Your task to perform on an android device: see tabs open on other devices in the chrome app Image 0: 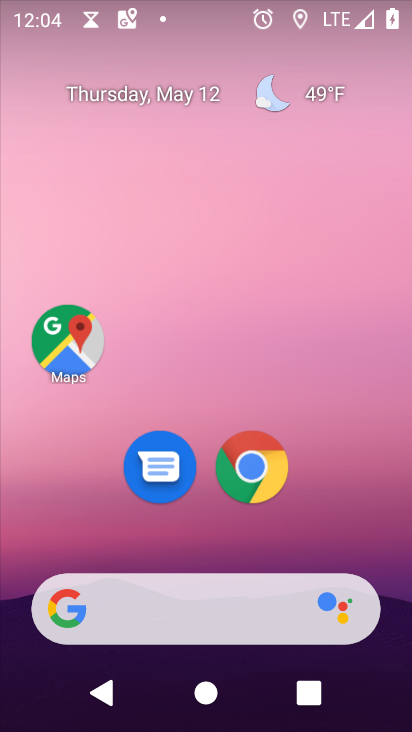
Step 0: drag from (171, 626) to (342, 197)
Your task to perform on an android device: see tabs open on other devices in the chrome app Image 1: 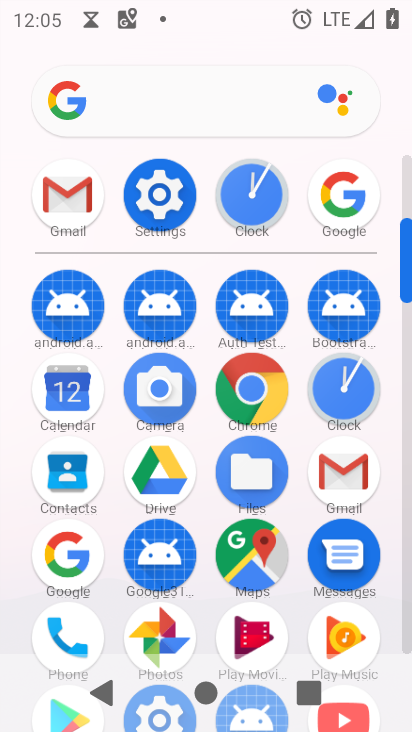
Step 1: click (262, 393)
Your task to perform on an android device: see tabs open on other devices in the chrome app Image 2: 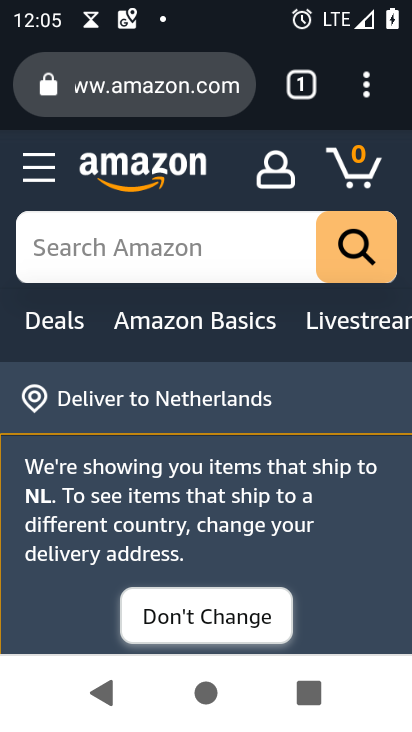
Step 2: task complete